Your task to perform on an android device: set the stopwatch Image 0: 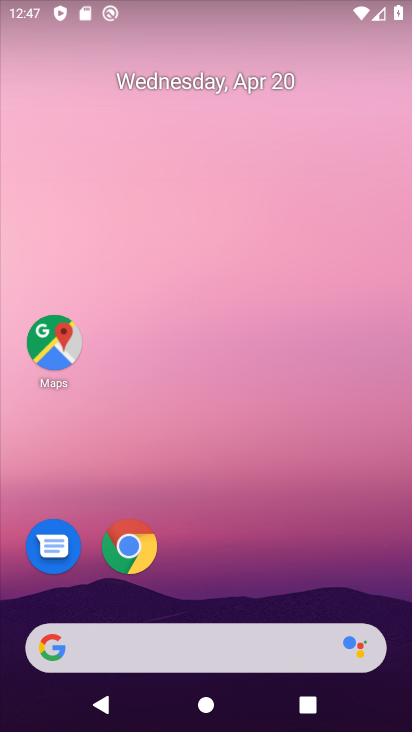
Step 0: drag from (205, 727) to (205, 115)
Your task to perform on an android device: set the stopwatch Image 1: 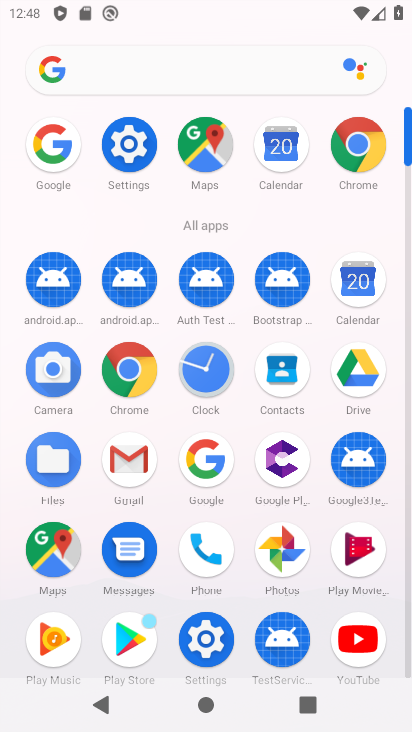
Step 1: click (204, 370)
Your task to perform on an android device: set the stopwatch Image 2: 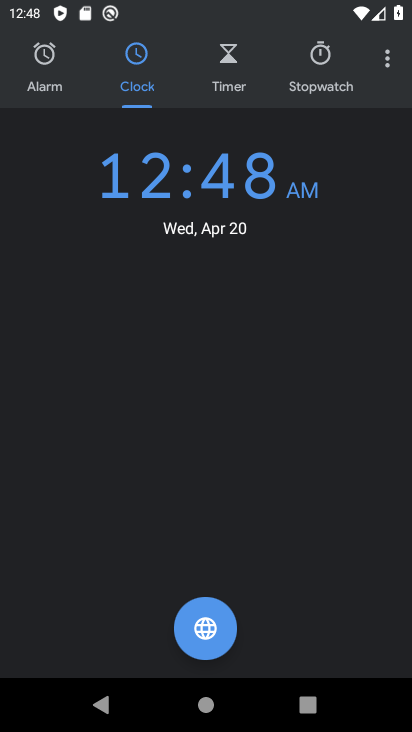
Step 2: click (320, 57)
Your task to perform on an android device: set the stopwatch Image 3: 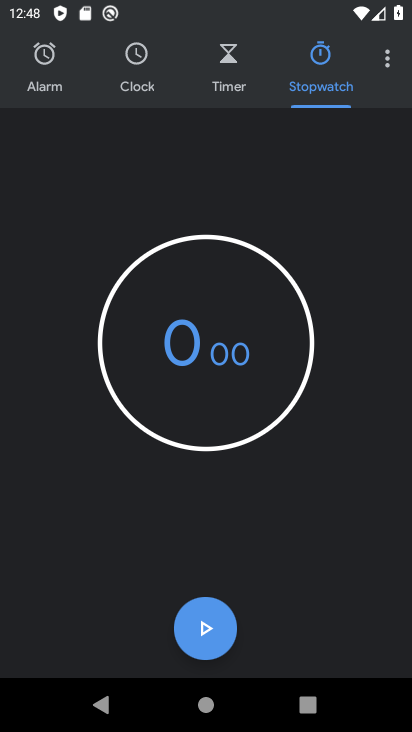
Step 3: type "78"
Your task to perform on an android device: set the stopwatch Image 4: 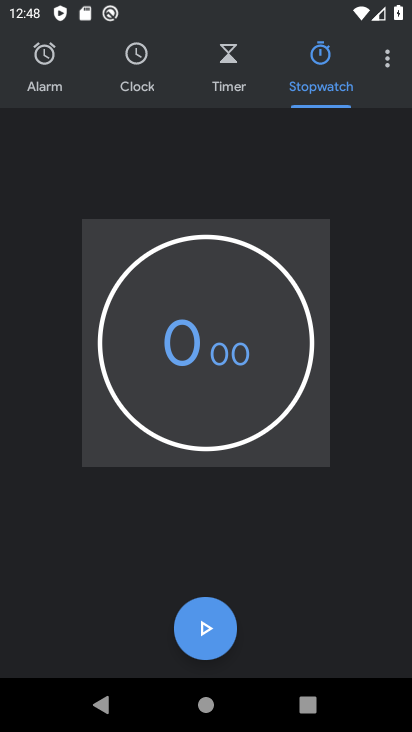
Step 4: click (199, 631)
Your task to perform on an android device: set the stopwatch Image 5: 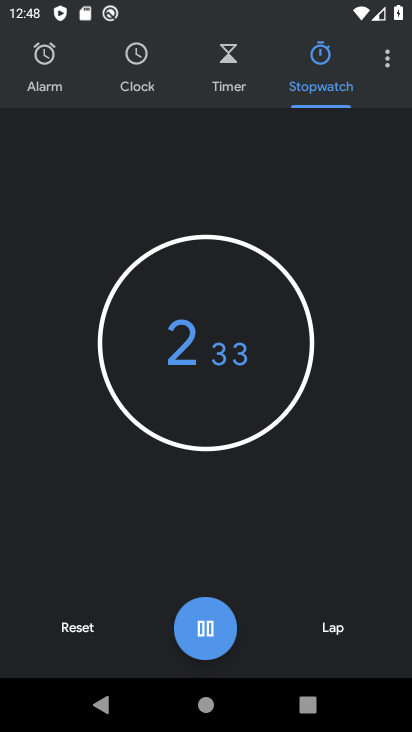
Step 5: type "67"
Your task to perform on an android device: set the stopwatch Image 6: 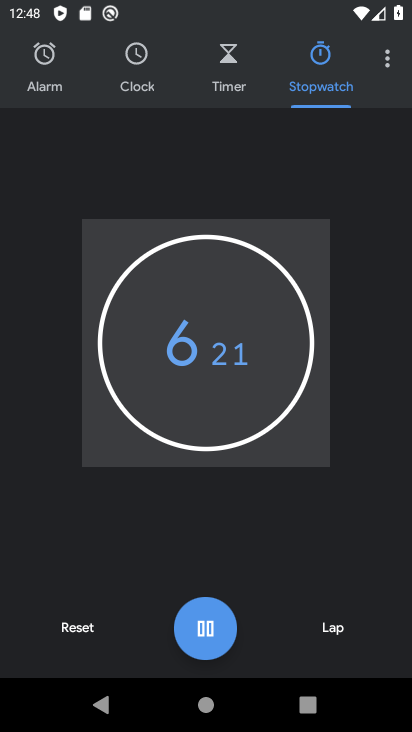
Step 6: task complete